Your task to perform on an android device: change the upload size in google photos Image 0: 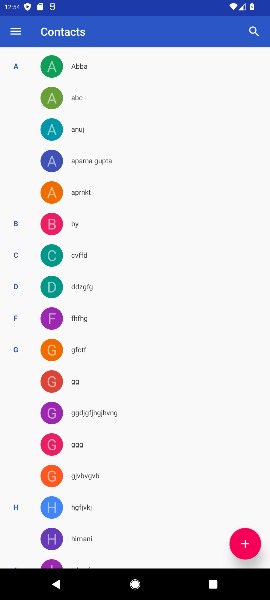
Step 0: press home button
Your task to perform on an android device: change the upload size in google photos Image 1: 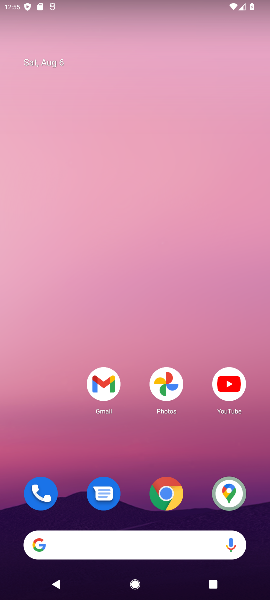
Step 1: click (148, 518)
Your task to perform on an android device: change the upload size in google photos Image 2: 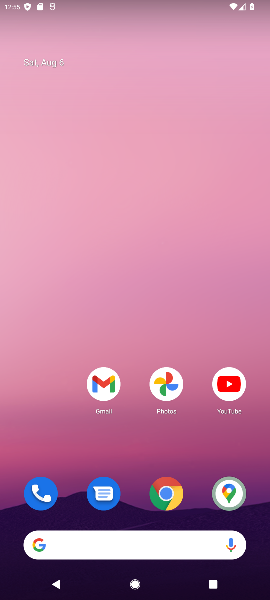
Step 2: drag from (137, 553) to (144, 218)
Your task to perform on an android device: change the upload size in google photos Image 3: 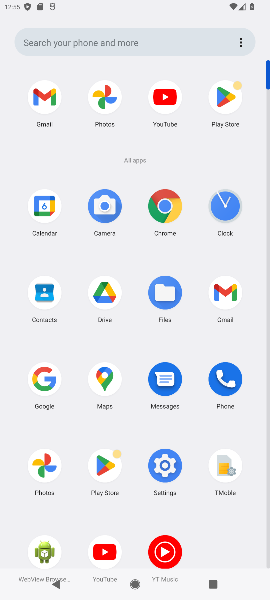
Step 3: click (50, 463)
Your task to perform on an android device: change the upload size in google photos Image 4: 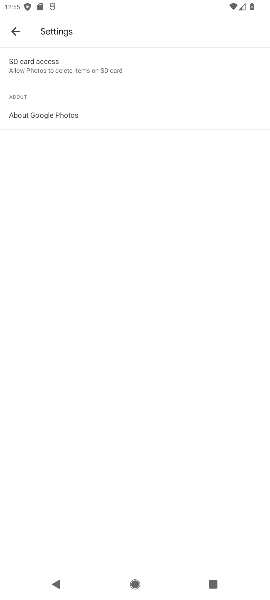
Step 4: click (13, 34)
Your task to perform on an android device: change the upload size in google photos Image 5: 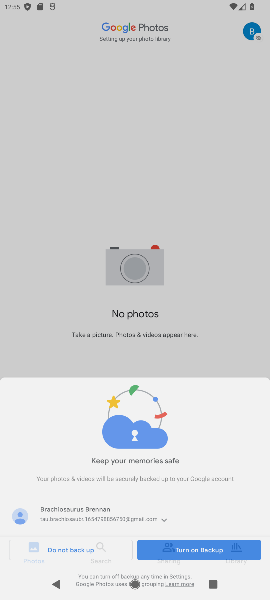
Step 5: click (253, 29)
Your task to perform on an android device: change the upload size in google photos Image 6: 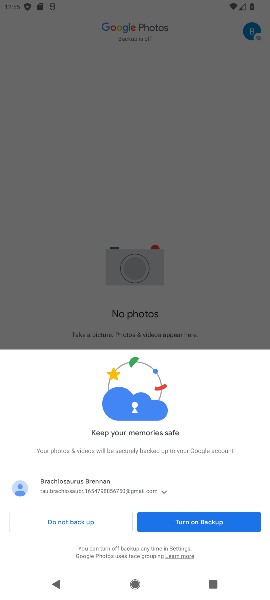
Step 6: click (179, 524)
Your task to perform on an android device: change the upload size in google photos Image 7: 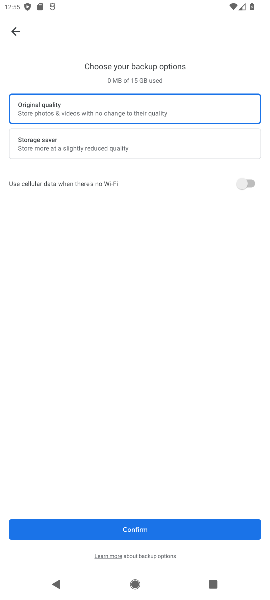
Step 7: click (132, 531)
Your task to perform on an android device: change the upload size in google photos Image 8: 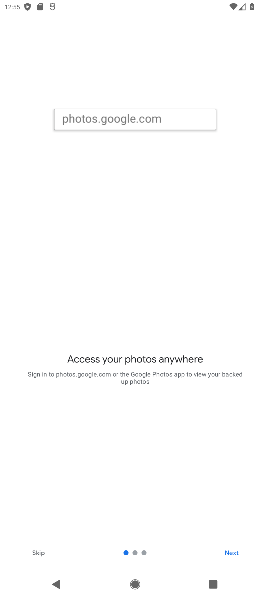
Step 8: task complete